Your task to perform on an android device: turn on sleep mode Image 0: 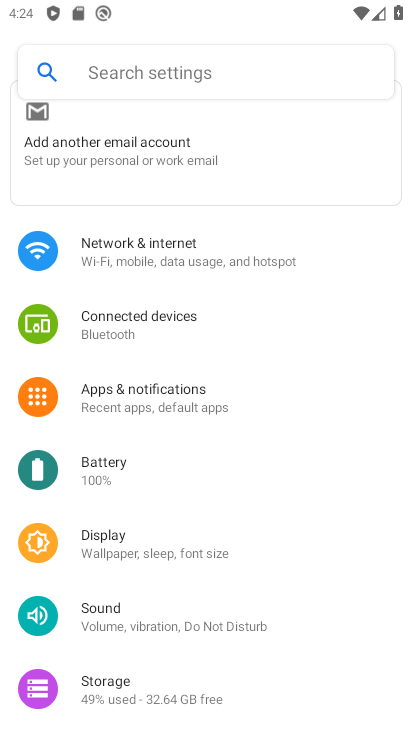
Step 0: click (111, 543)
Your task to perform on an android device: turn on sleep mode Image 1: 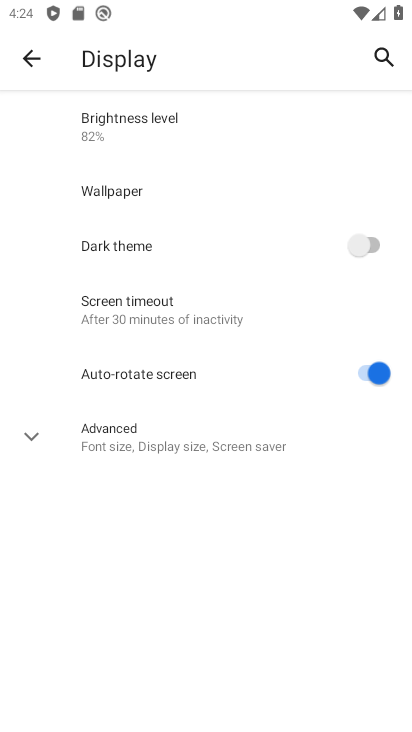
Step 1: click (31, 434)
Your task to perform on an android device: turn on sleep mode Image 2: 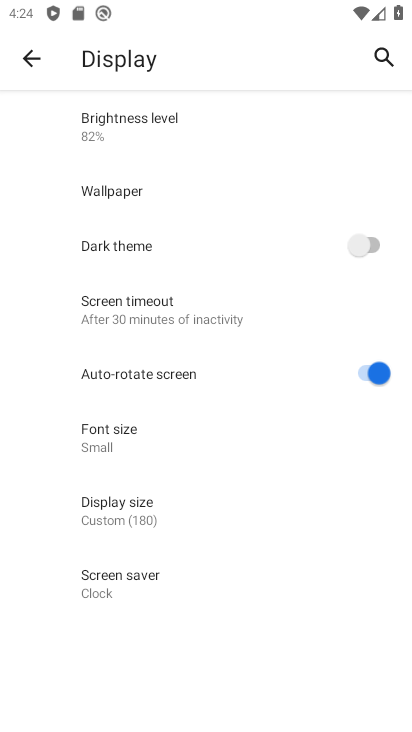
Step 2: task complete